Your task to perform on an android device: refresh tabs in the chrome app Image 0: 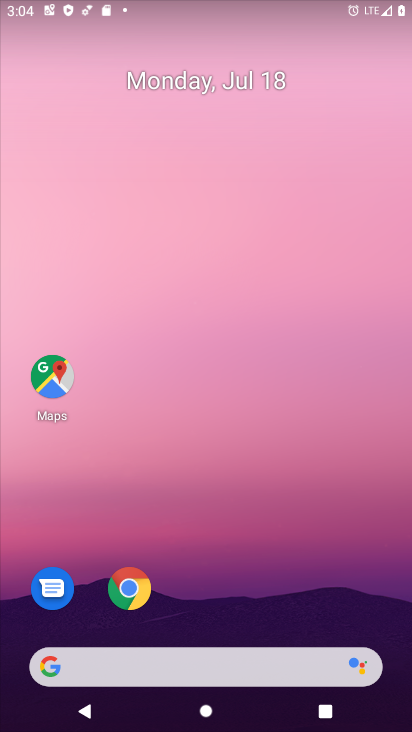
Step 0: click (141, 586)
Your task to perform on an android device: refresh tabs in the chrome app Image 1: 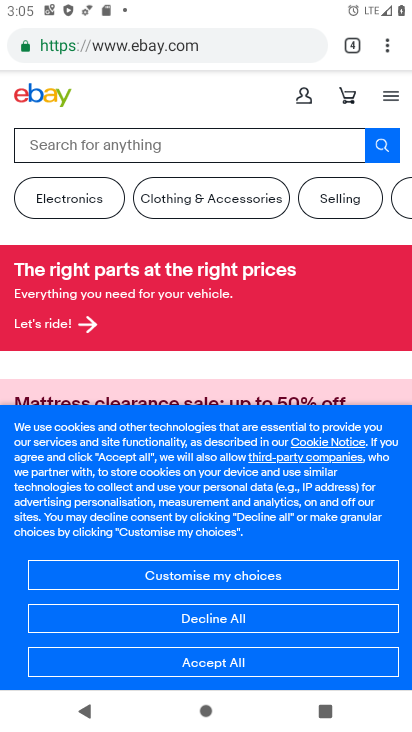
Step 1: click (388, 44)
Your task to perform on an android device: refresh tabs in the chrome app Image 2: 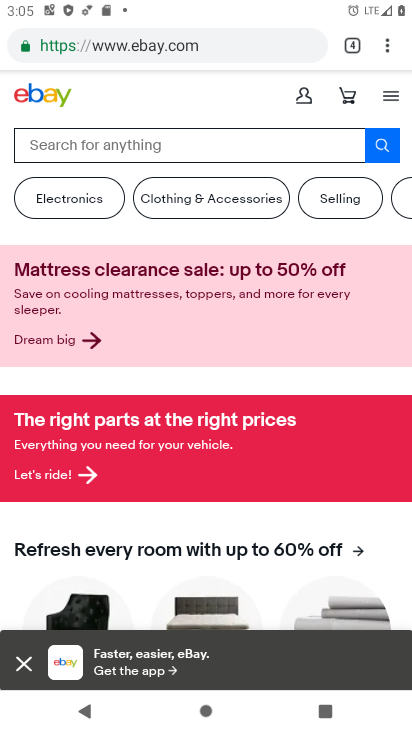
Step 2: task complete